Your task to perform on an android device: change your default location settings in chrome Image 0: 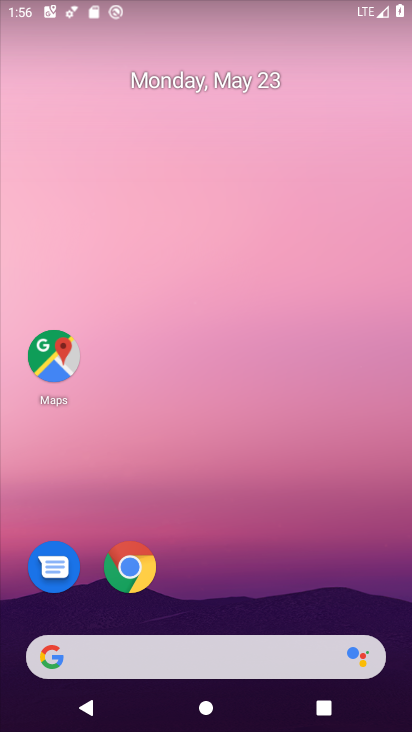
Step 0: drag from (296, 569) to (299, 272)
Your task to perform on an android device: change your default location settings in chrome Image 1: 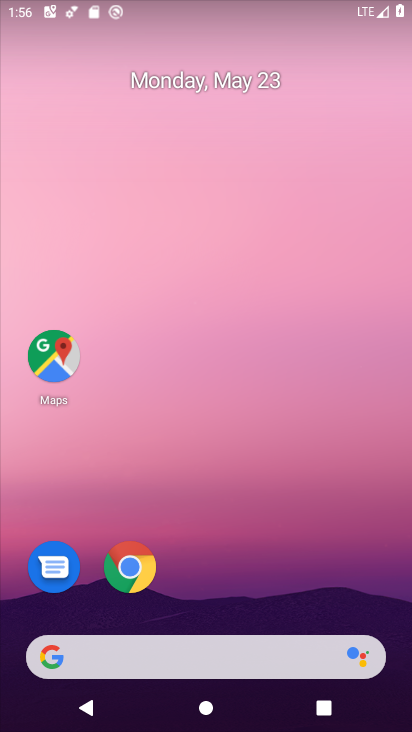
Step 1: drag from (228, 562) to (271, 218)
Your task to perform on an android device: change your default location settings in chrome Image 2: 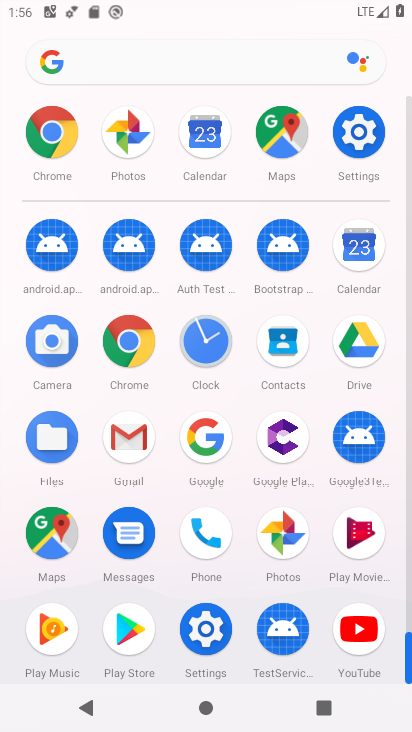
Step 2: click (131, 357)
Your task to perform on an android device: change your default location settings in chrome Image 3: 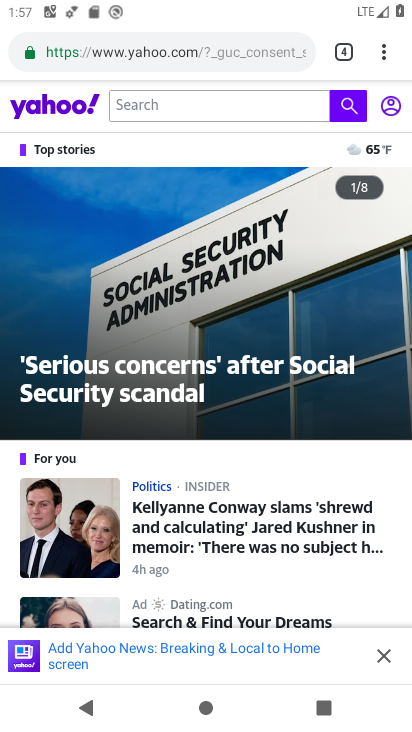
Step 3: click (375, 56)
Your task to perform on an android device: change your default location settings in chrome Image 4: 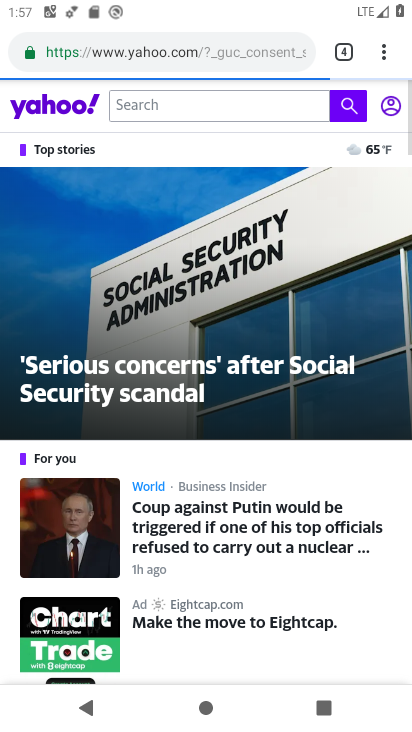
Step 4: click (378, 58)
Your task to perform on an android device: change your default location settings in chrome Image 5: 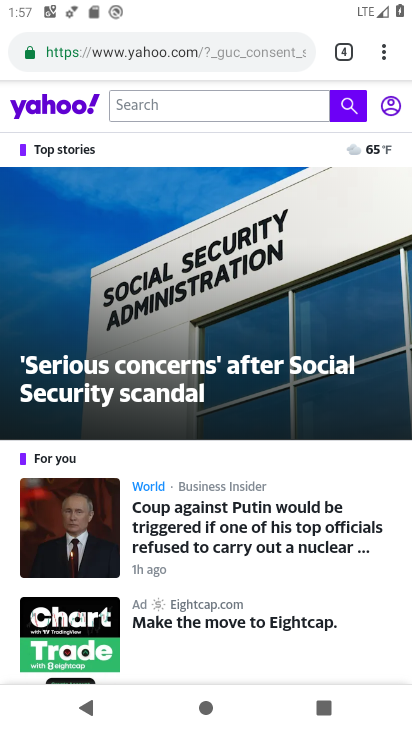
Step 5: click (384, 53)
Your task to perform on an android device: change your default location settings in chrome Image 6: 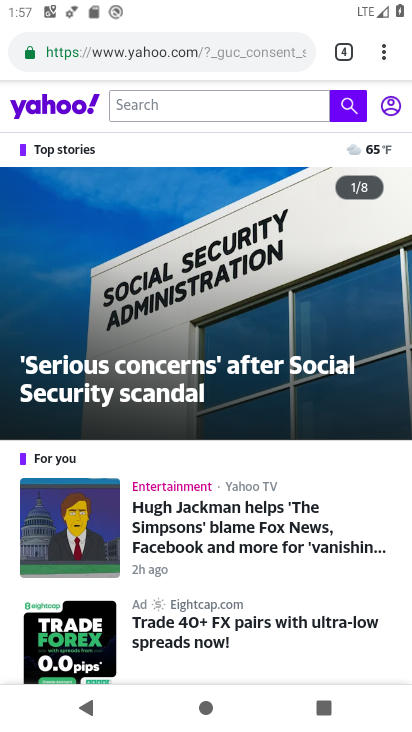
Step 6: click (387, 56)
Your task to perform on an android device: change your default location settings in chrome Image 7: 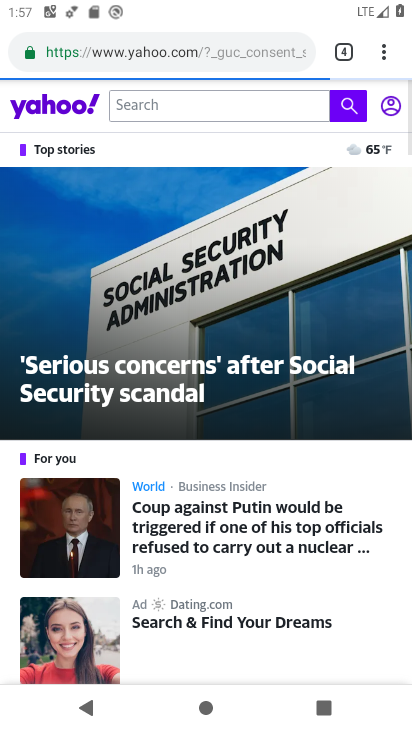
Step 7: click (387, 56)
Your task to perform on an android device: change your default location settings in chrome Image 8: 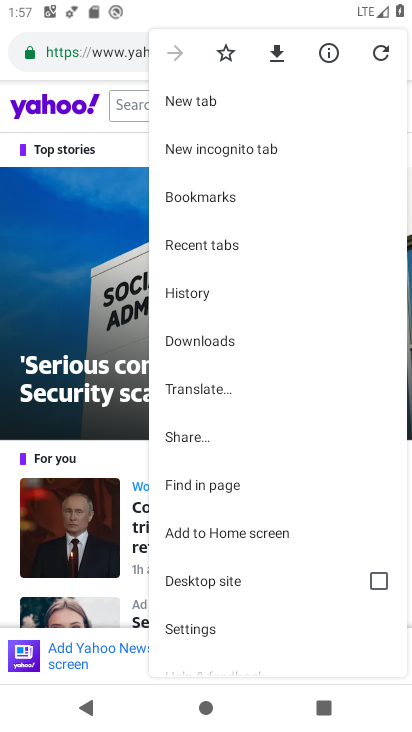
Step 8: click (235, 633)
Your task to perform on an android device: change your default location settings in chrome Image 9: 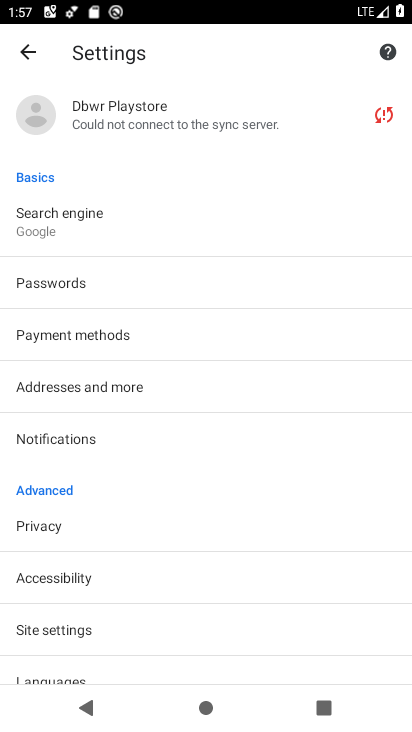
Step 9: click (98, 640)
Your task to perform on an android device: change your default location settings in chrome Image 10: 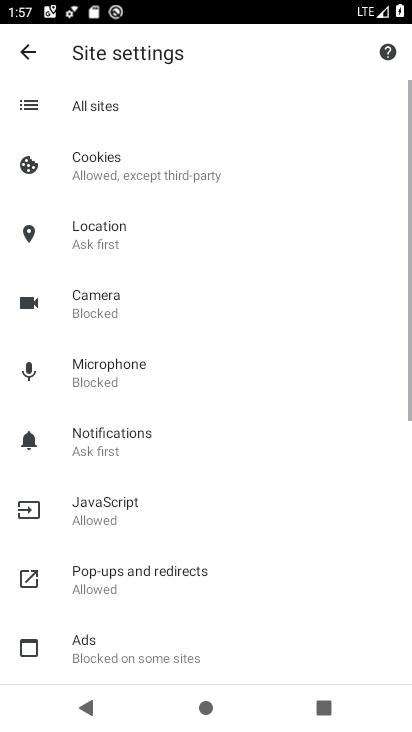
Step 10: click (162, 229)
Your task to perform on an android device: change your default location settings in chrome Image 11: 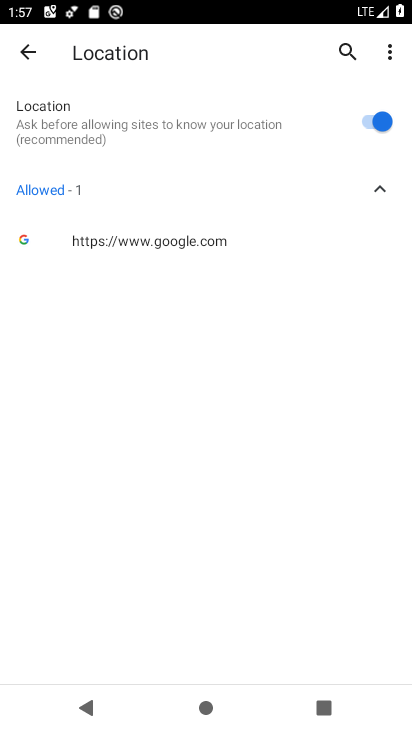
Step 11: click (380, 119)
Your task to perform on an android device: change your default location settings in chrome Image 12: 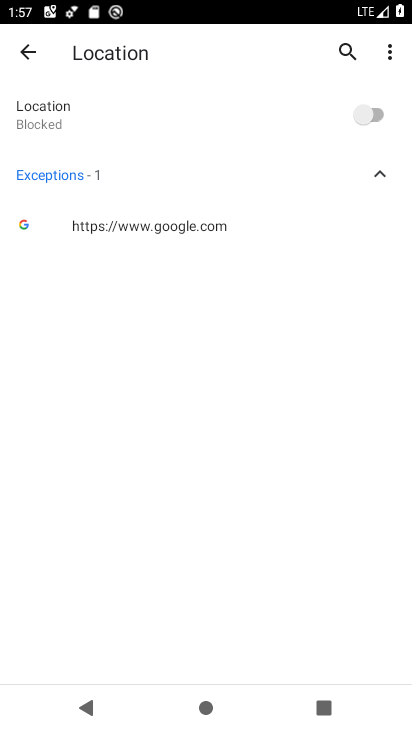
Step 12: task complete